Your task to perform on an android device: What's the weather today? Image 0: 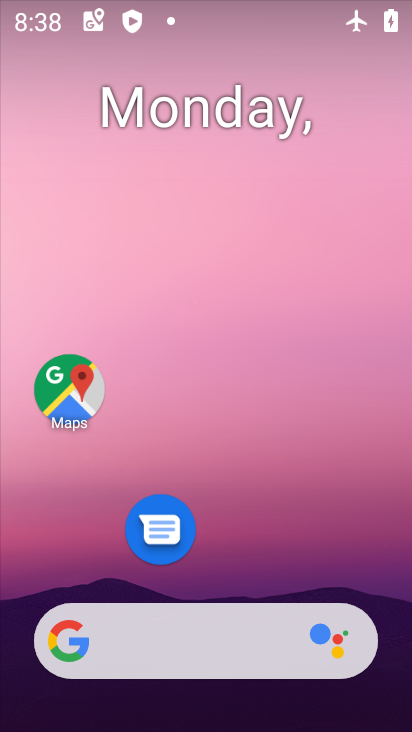
Step 0: drag from (225, 568) to (271, 150)
Your task to perform on an android device: What's the weather today? Image 1: 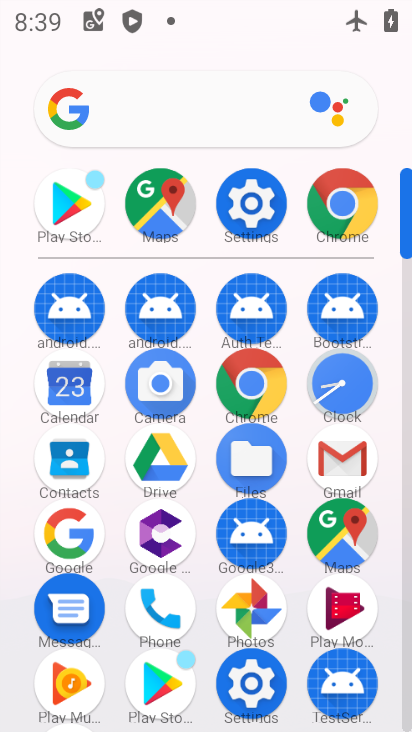
Step 1: click (76, 517)
Your task to perform on an android device: What's the weather today? Image 2: 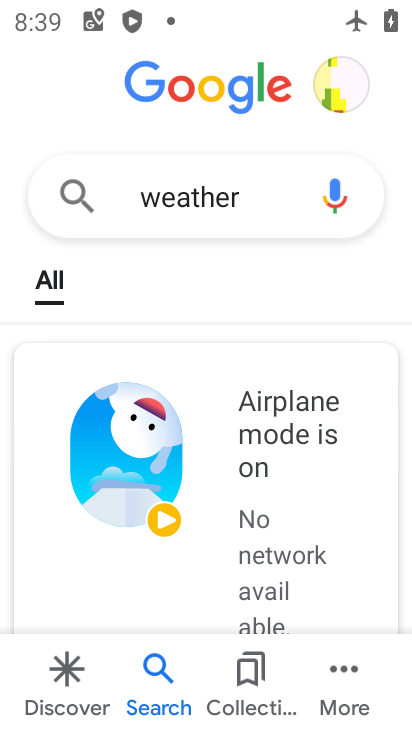
Step 2: task complete